Your task to perform on an android device: Check the news Image 0: 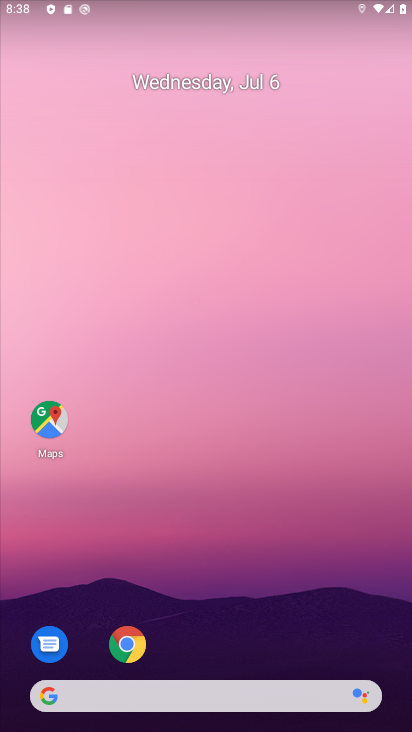
Step 0: drag from (46, 499) to (386, 475)
Your task to perform on an android device: Check the news Image 1: 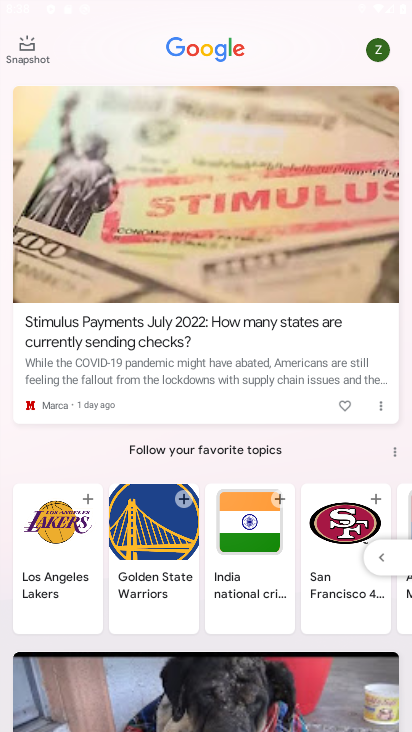
Step 1: task complete